Your task to perform on an android device: Check the settings for the Amazon Music app Image 0: 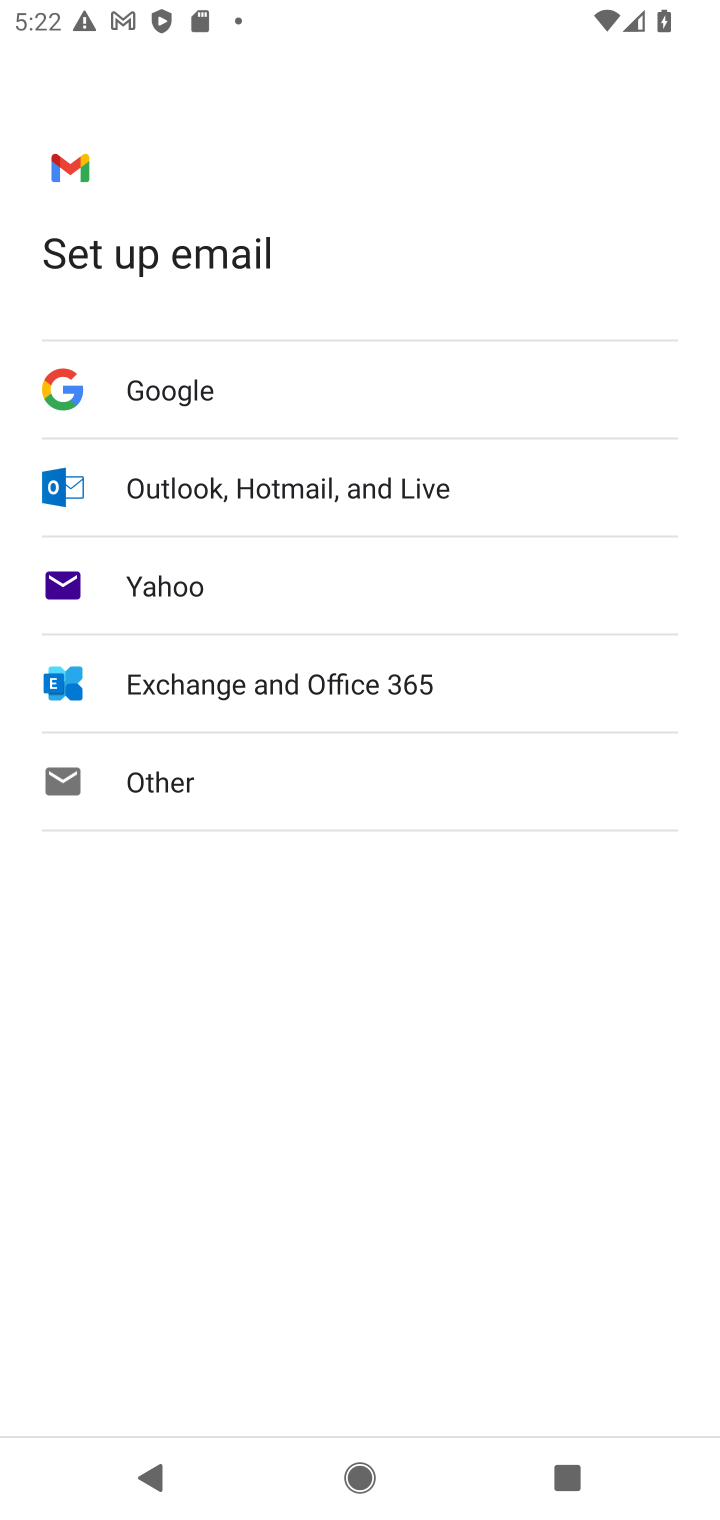
Step 0: press home button
Your task to perform on an android device: Check the settings for the Amazon Music app Image 1: 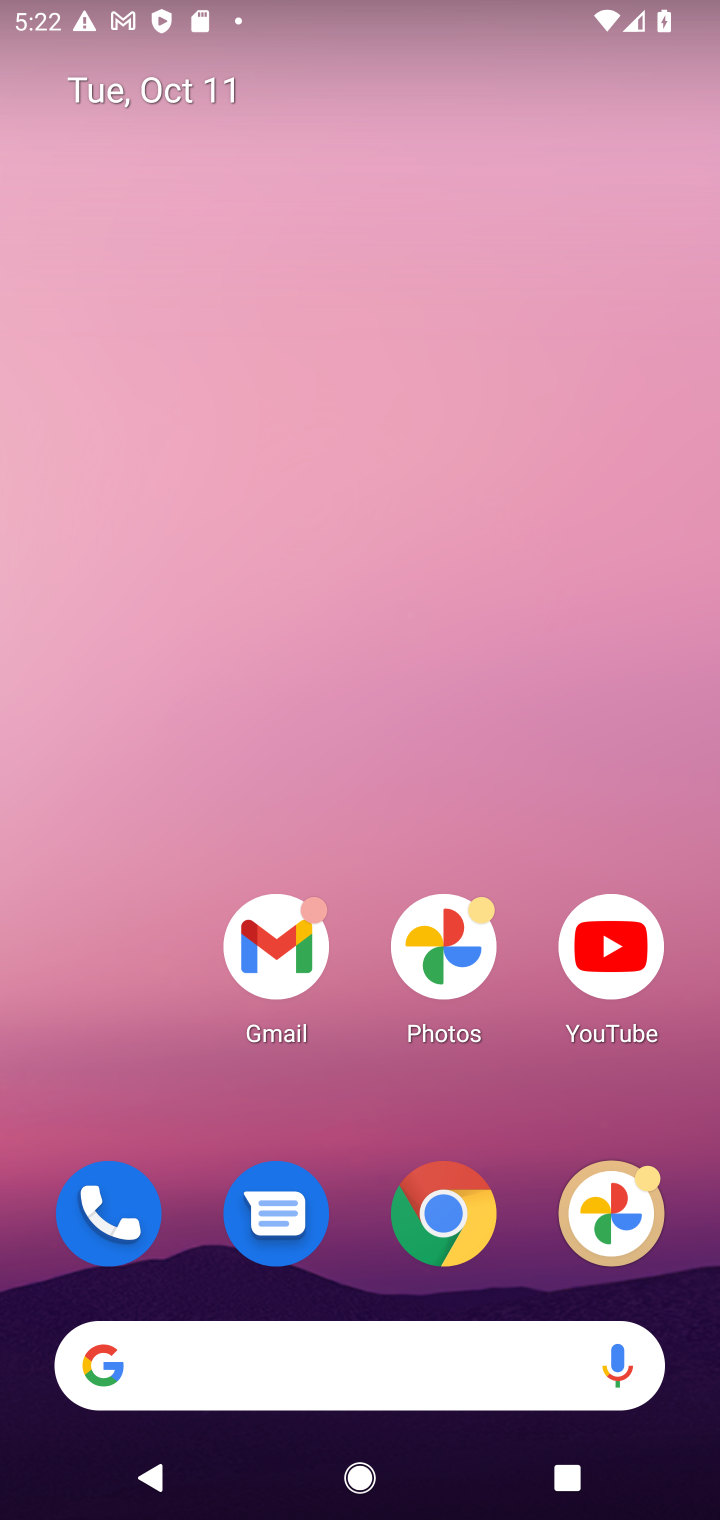
Step 1: drag from (416, 1324) to (369, 380)
Your task to perform on an android device: Check the settings for the Amazon Music app Image 2: 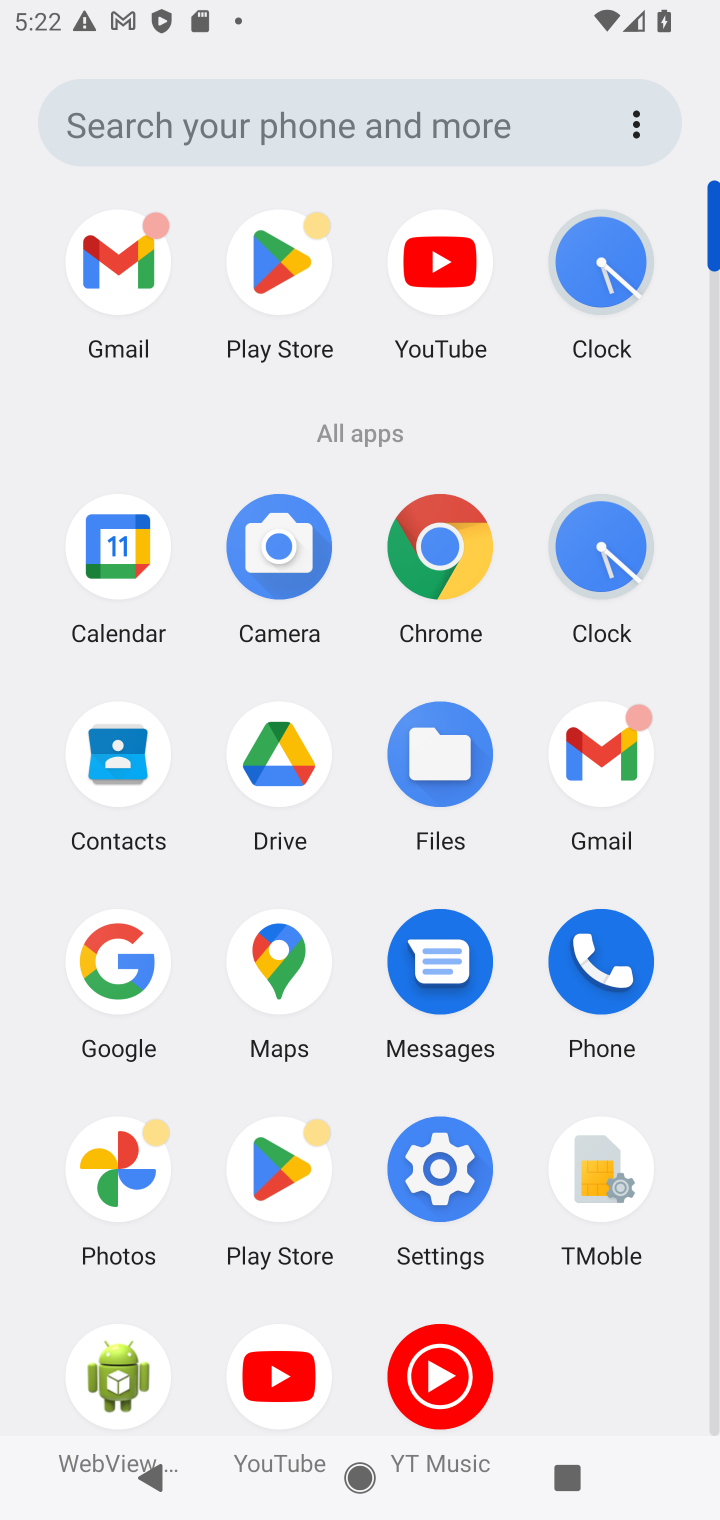
Step 2: click (79, 956)
Your task to perform on an android device: Check the settings for the Amazon Music app Image 3: 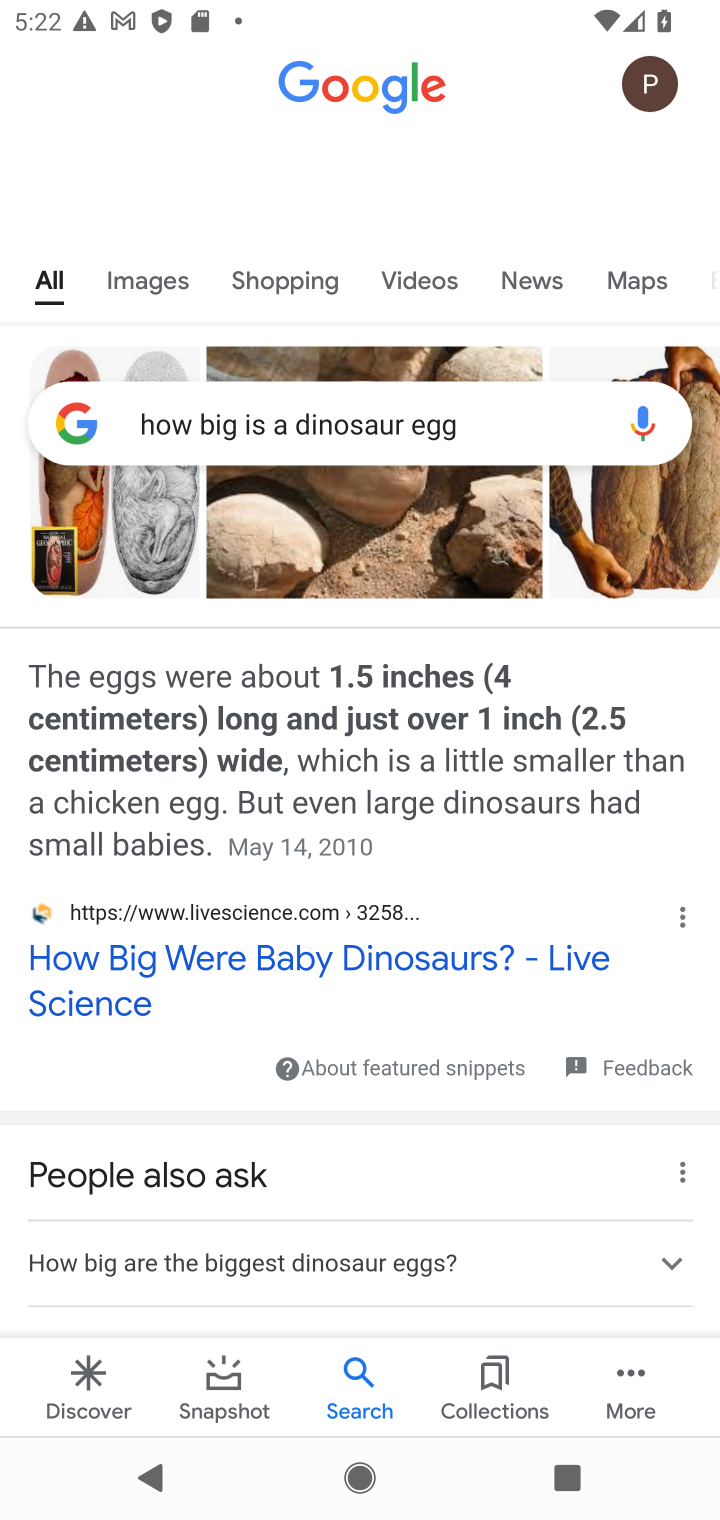
Step 3: click (354, 419)
Your task to perform on an android device: Check the settings for the Amazon Music app Image 4: 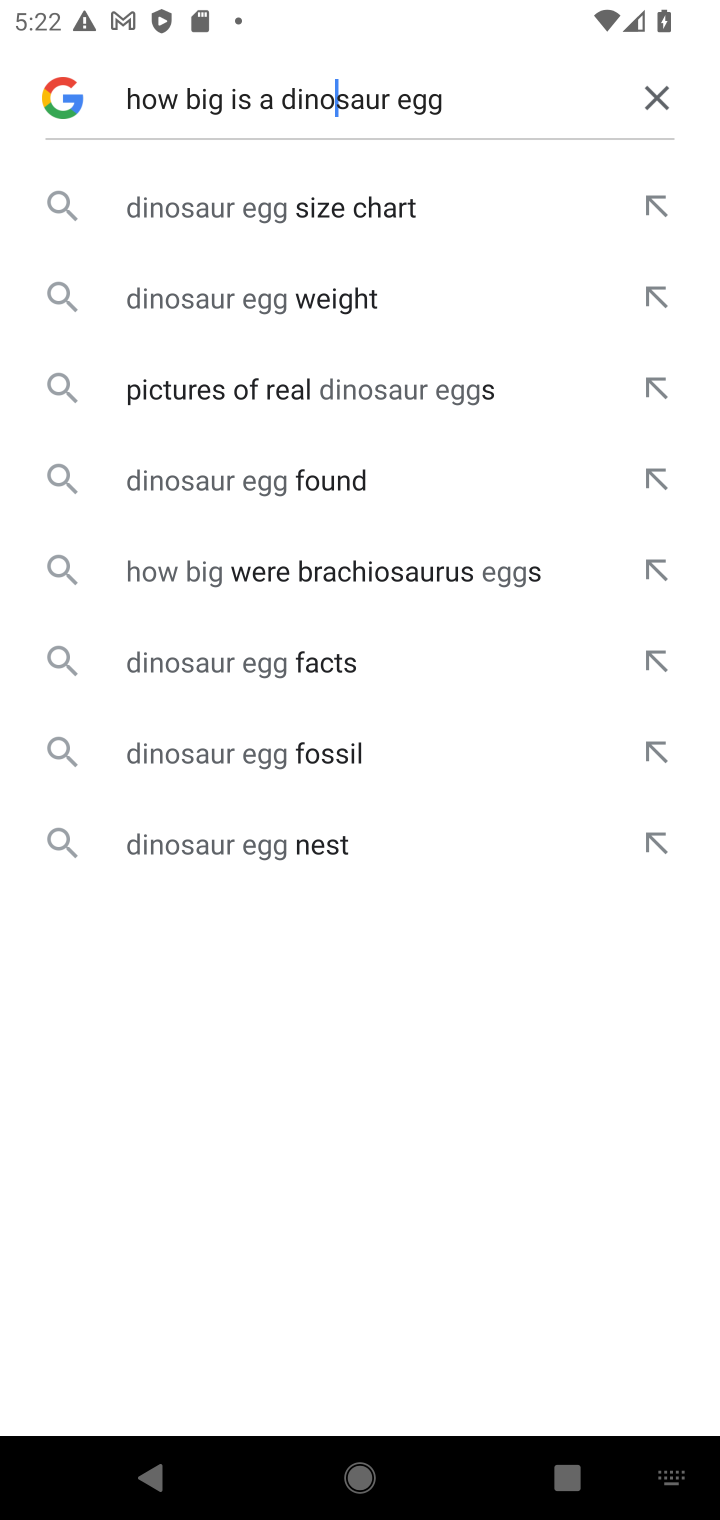
Step 4: task complete